Your task to perform on an android device: empty trash in the gmail app Image 0: 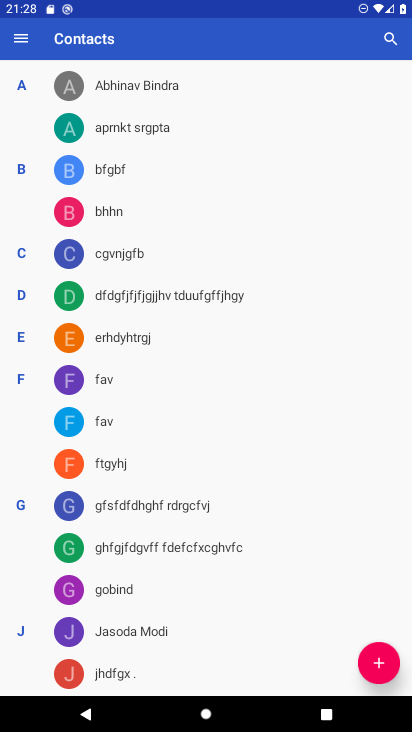
Step 0: press home button
Your task to perform on an android device: empty trash in the gmail app Image 1: 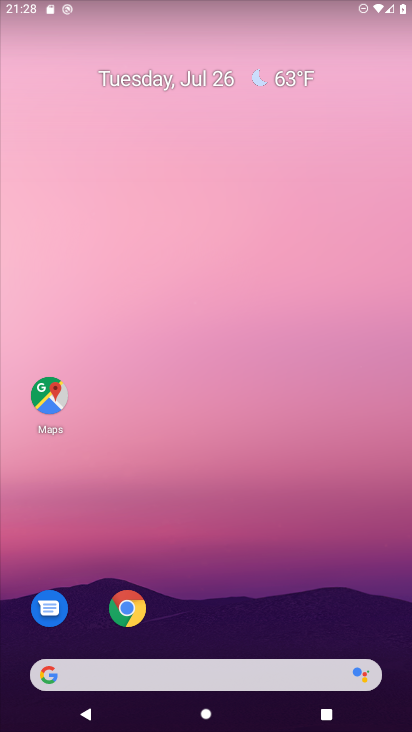
Step 1: drag from (8, 685) to (207, 186)
Your task to perform on an android device: empty trash in the gmail app Image 2: 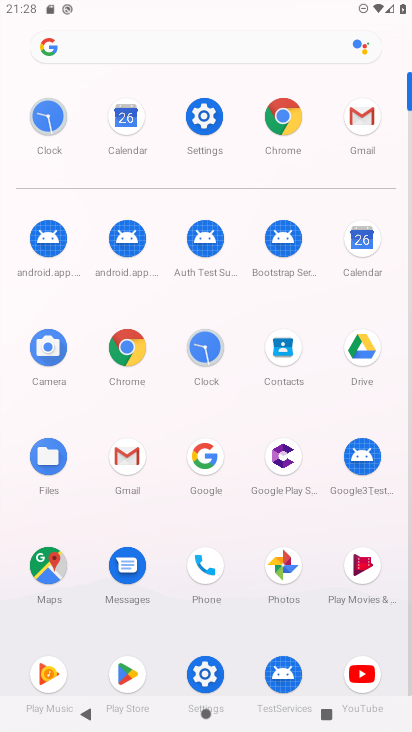
Step 2: click (128, 462)
Your task to perform on an android device: empty trash in the gmail app Image 3: 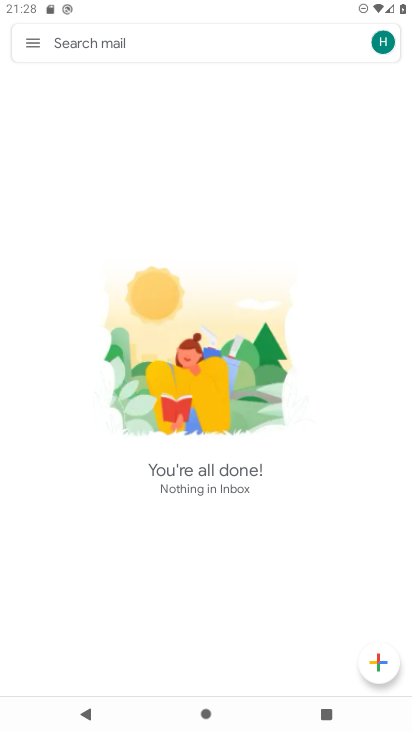
Step 3: click (24, 45)
Your task to perform on an android device: empty trash in the gmail app Image 4: 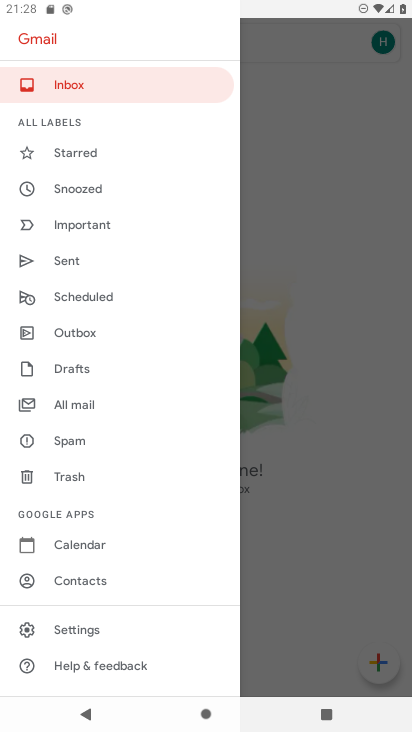
Step 4: click (64, 469)
Your task to perform on an android device: empty trash in the gmail app Image 5: 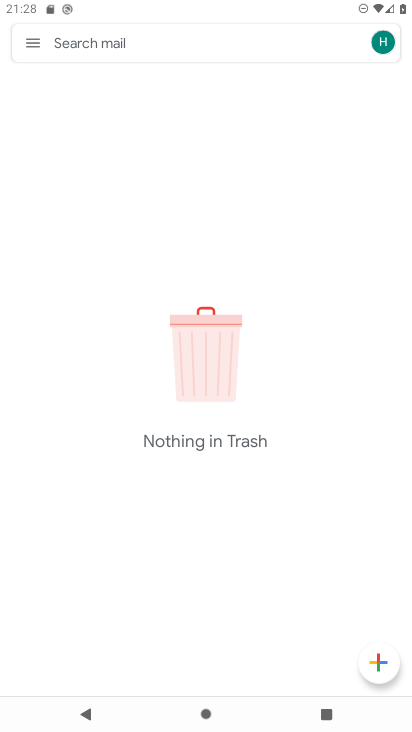
Step 5: task complete